Your task to perform on an android device: manage bookmarks in the chrome app Image 0: 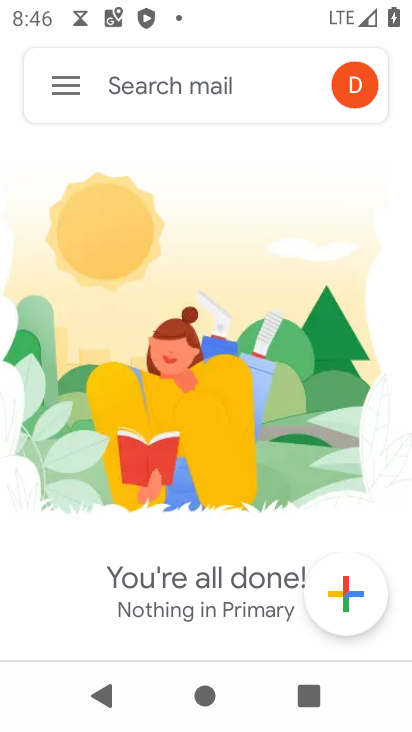
Step 0: press home button
Your task to perform on an android device: manage bookmarks in the chrome app Image 1: 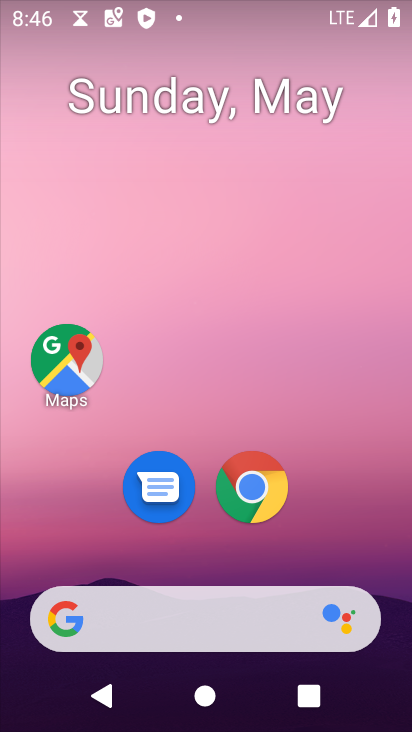
Step 1: drag from (332, 361) to (315, 62)
Your task to perform on an android device: manage bookmarks in the chrome app Image 2: 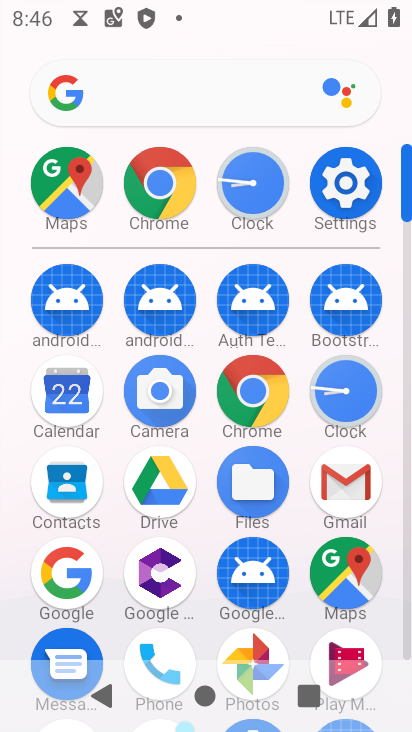
Step 2: click (131, 190)
Your task to perform on an android device: manage bookmarks in the chrome app Image 3: 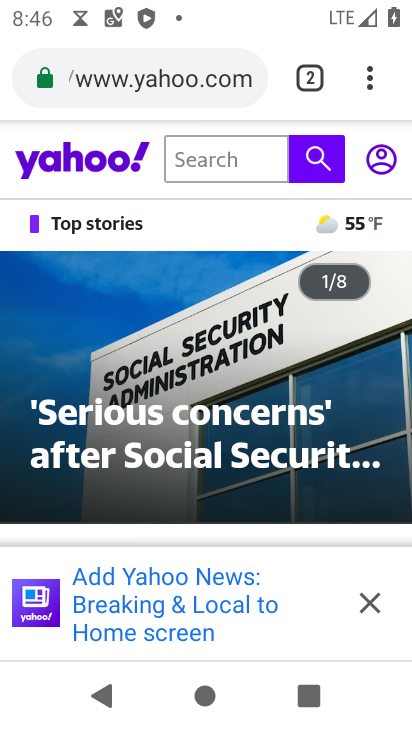
Step 3: drag from (398, 74) to (144, 281)
Your task to perform on an android device: manage bookmarks in the chrome app Image 4: 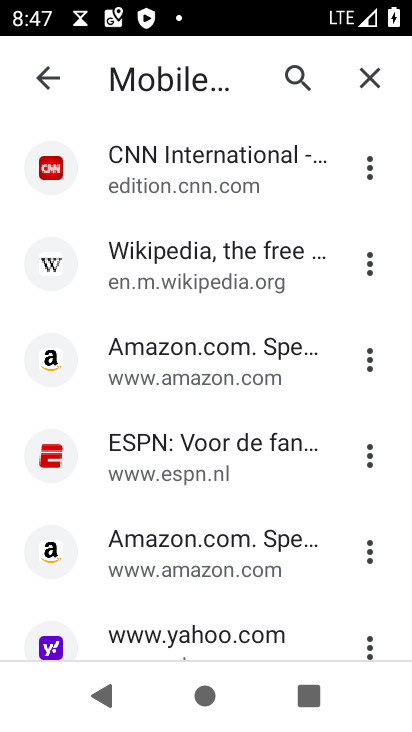
Step 4: click (370, 167)
Your task to perform on an android device: manage bookmarks in the chrome app Image 5: 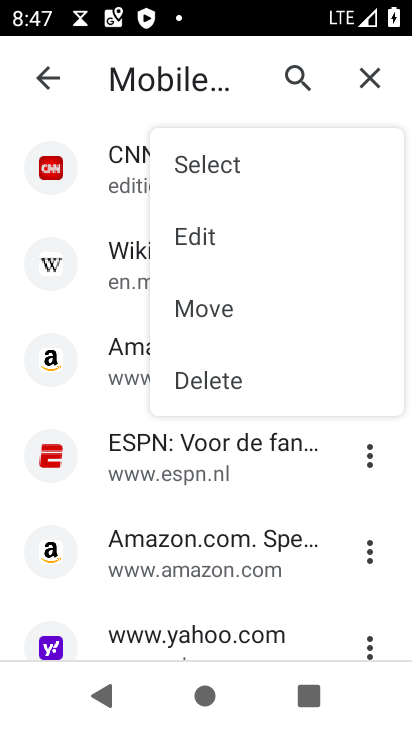
Step 5: click (220, 381)
Your task to perform on an android device: manage bookmarks in the chrome app Image 6: 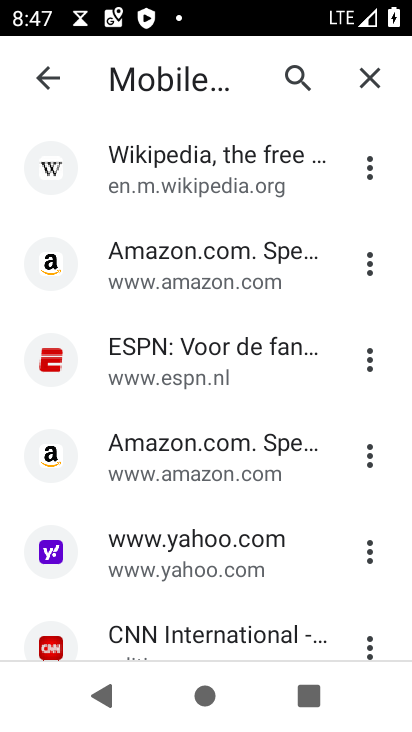
Step 6: task complete